Your task to perform on an android device: Open the Play Movies app and select the watchlist tab. Image 0: 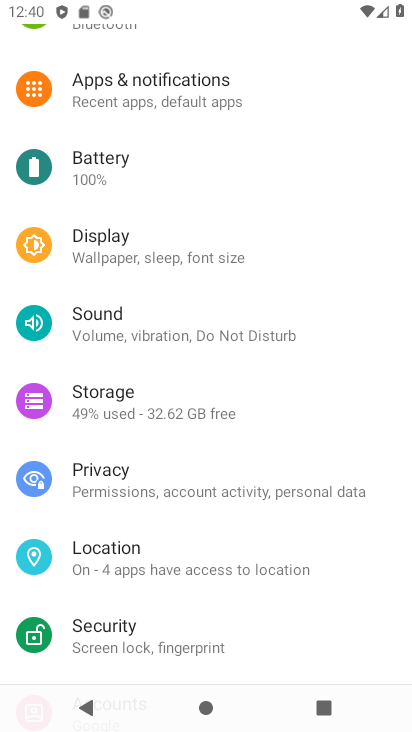
Step 0: press home button
Your task to perform on an android device: Open the Play Movies app and select the watchlist tab. Image 1: 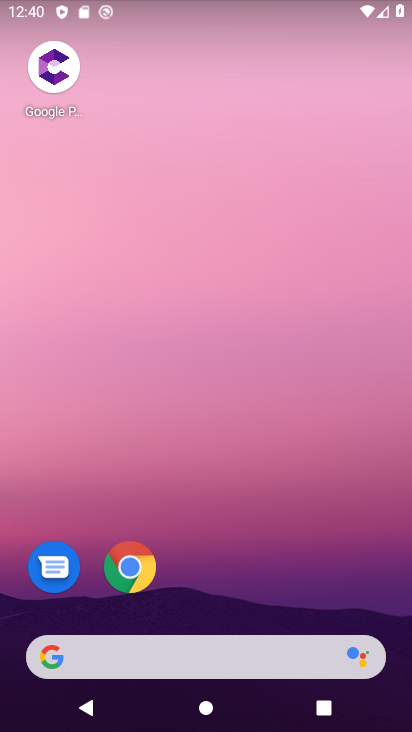
Step 1: drag from (250, 587) to (241, 189)
Your task to perform on an android device: Open the Play Movies app and select the watchlist tab. Image 2: 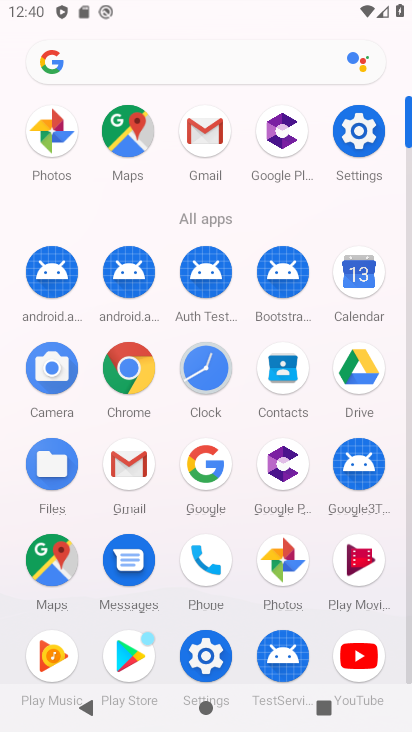
Step 2: click (353, 570)
Your task to perform on an android device: Open the Play Movies app and select the watchlist tab. Image 3: 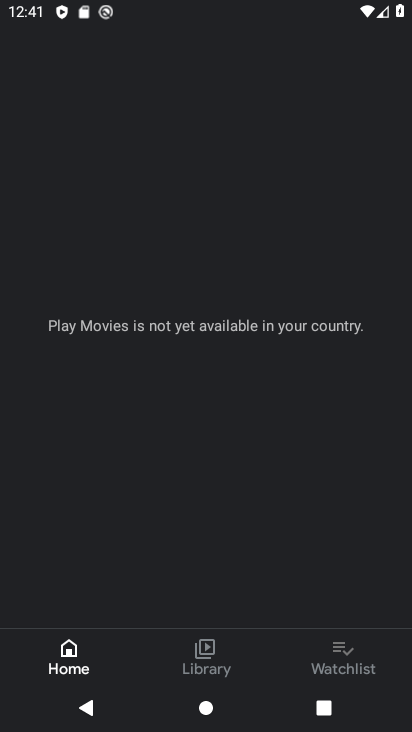
Step 3: click (341, 650)
Your task to perform on an android device: Open the Play Movies app and select the watchlist tab. Image 4: 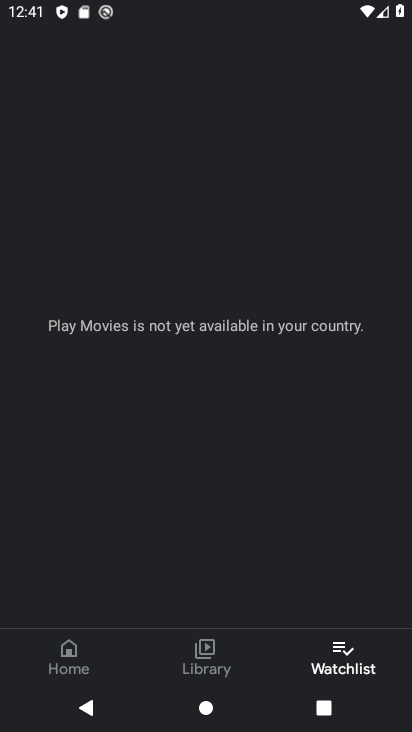
Step 4: task complete